Your task to perform on an android device: Open Android settings Image 0: 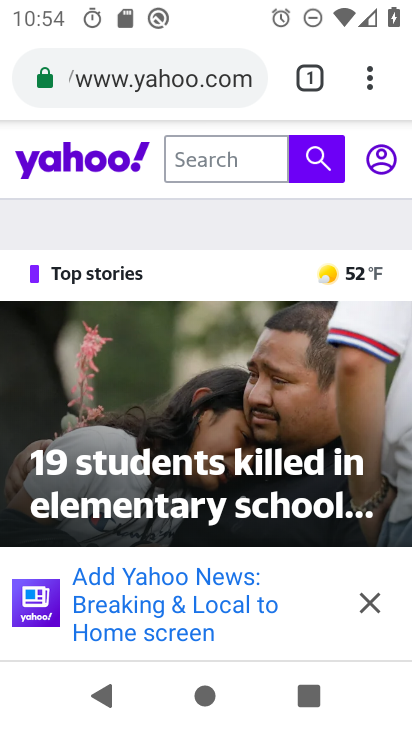
Step 0: press home button
Your task to perform on an android device: Open Android settings Image 1: 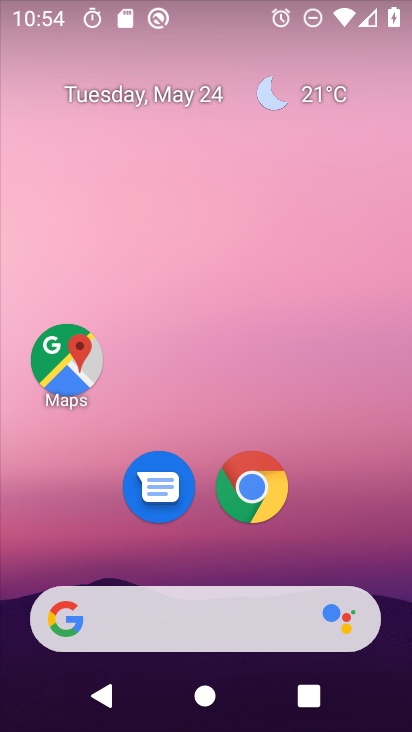
Step 1: drag from (350, 564) to (340, 7)
Your task to perform on an android device: Open Android settings Image 2: 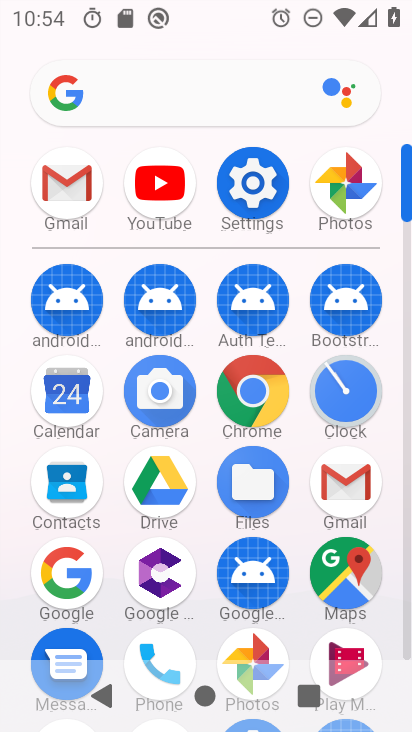
Step 2: click (246, 183)
Your task to perform on an android device: Open Android settings Image 3: 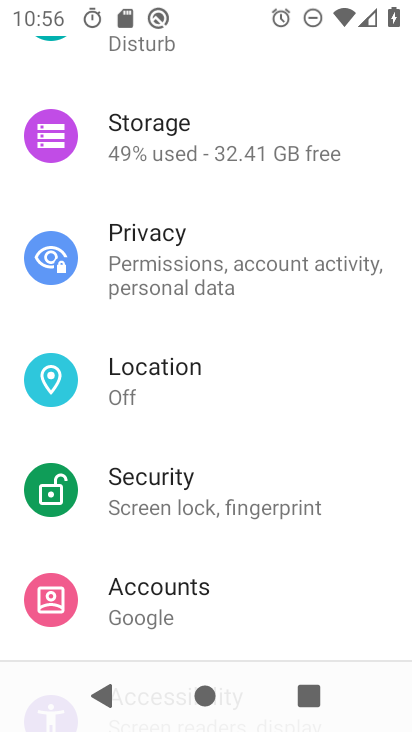
Step 3: task complete